Your task to perform on an android device: Go to battery settings Image 0: 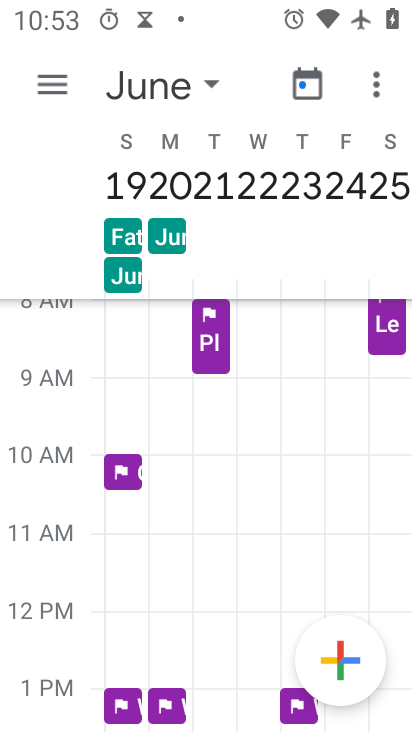
Step 0: press home button
Your task to perform on an android device: Go to battery settings Image 1: 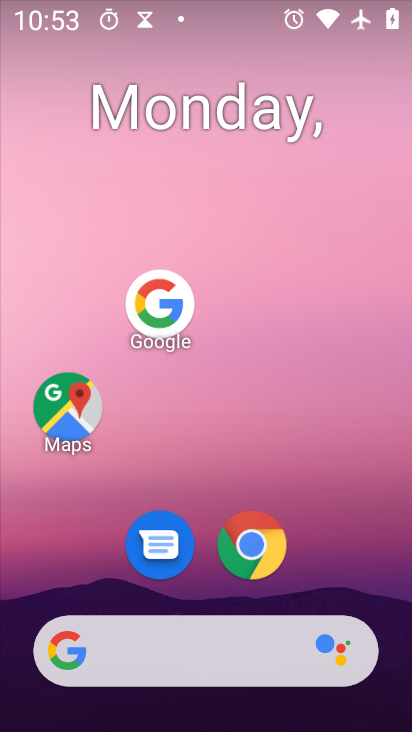
Step 1: drag from (184, 640) to (314, 177)
Your task to perform on an android device: Go to battery settings Image 2: 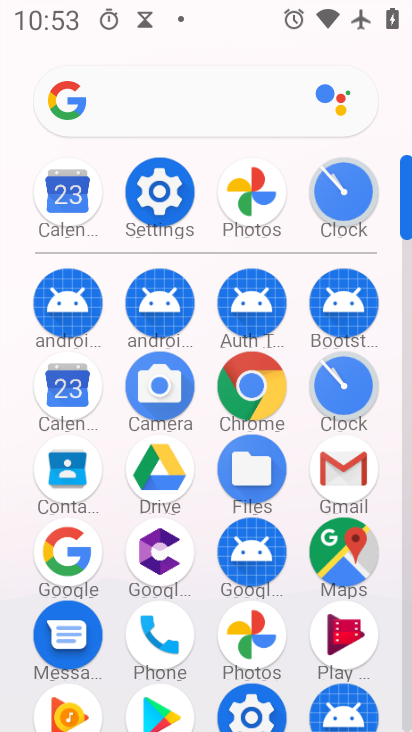
Step 2: click (157, 204)
Your task to perform on an android device: Go to battery settings Image 3: 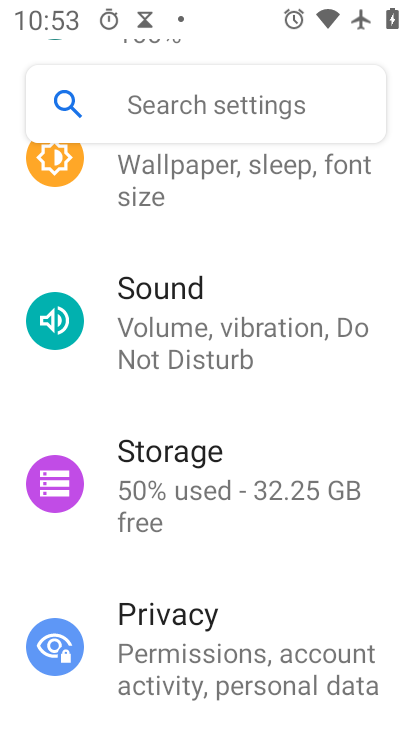
Step 3: drag from (341, 254) to (288, 697)
Your task to perform on an android device: Go to battery settings Image 4: 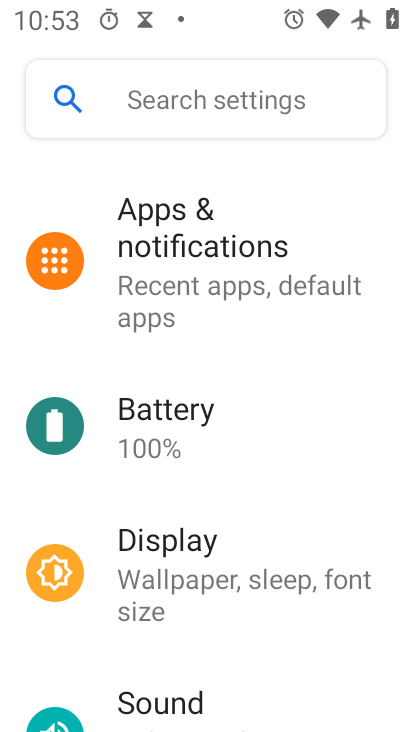
Step 4: click (169, 441)
Your task to perform on an android device: Go to battery settings Image 5: 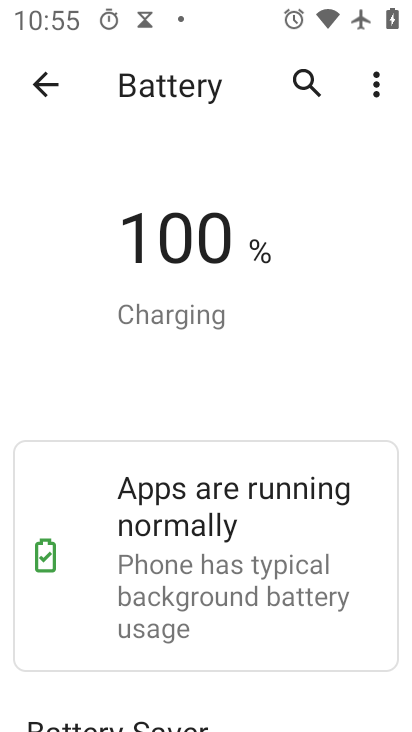
Step 5: task complete